Your task to perform on an android device: Open settings on Google Maps Image 0: 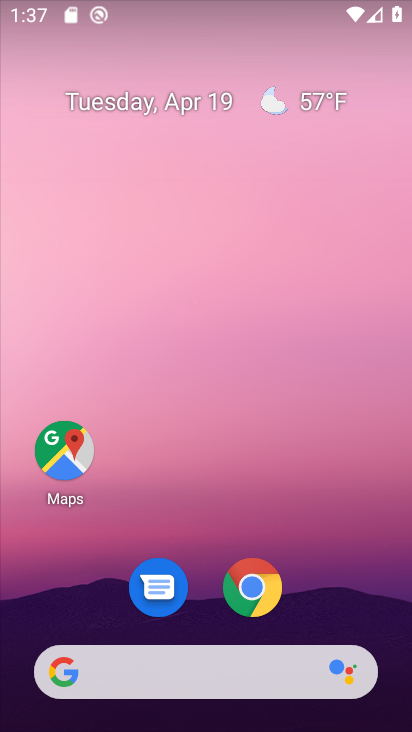
Step 0: click (63, 478)
Your task to perform on an android device: Open settings on Google Maps Image 1: 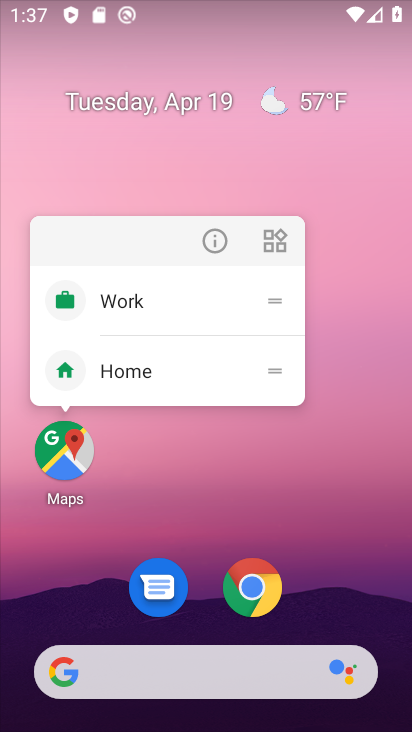
Step 1: click (67, 457)
Your task to perform on an android device: Open settings on Google Maps Image 2: 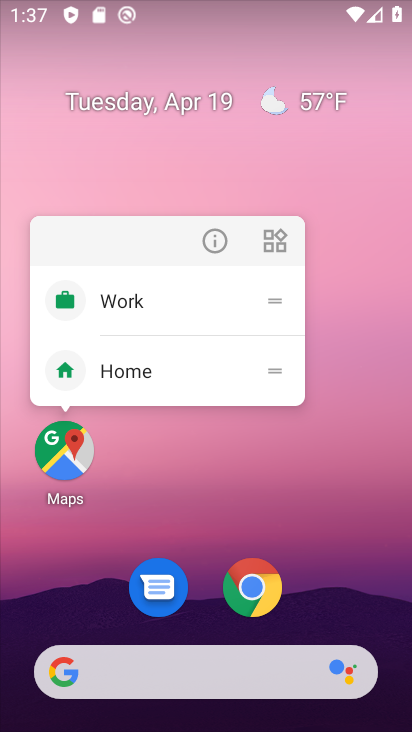
Step 2: click (68, 461)
Your task to perform on an android device: Open settings on Google Maps Image 3: 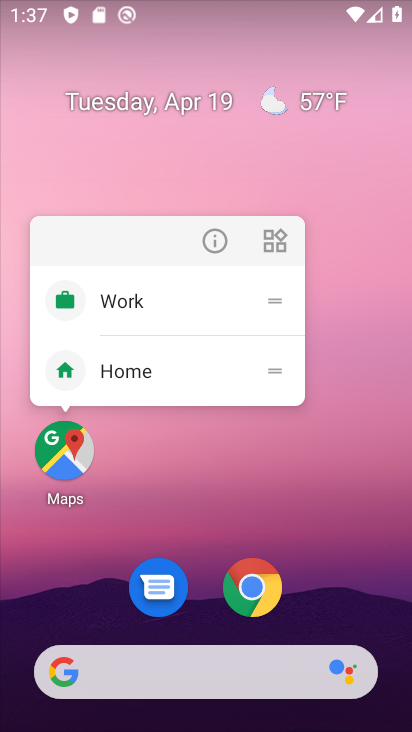
Step 3: click (64, 462)
Your task to perform on an android device: Open settings on Google Maps Image 4: 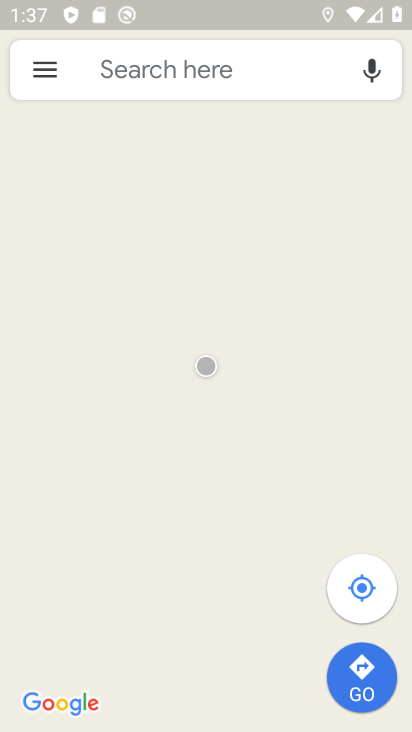
Step 4: click (50, 72)
Your task to perform on an android device: Open settings on Google Maps Image 5: 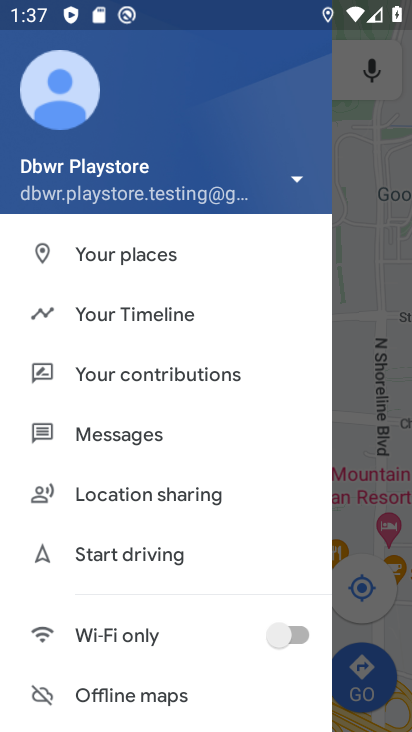
Step 5: drag from (186, 535) to (251, 205)
Your task to perform on an android device: Open settings on Google Maps Image 6: 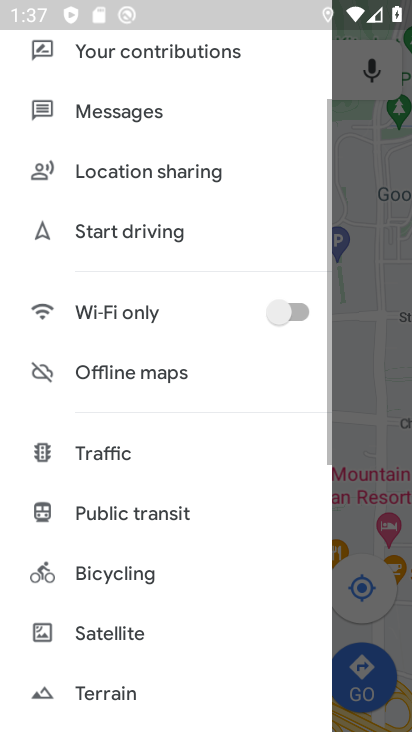
Step 6: drag from (162, 652) to (234, 286)
Your task to perform on an android device: Open settings on Google Maps Image 7: 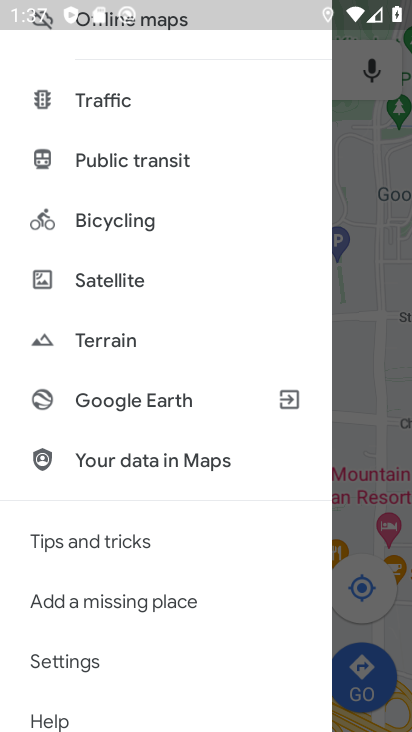
Step 7: click (106, 668)
Your task to perform on an android device: Open settings on Google Maps Image 8: 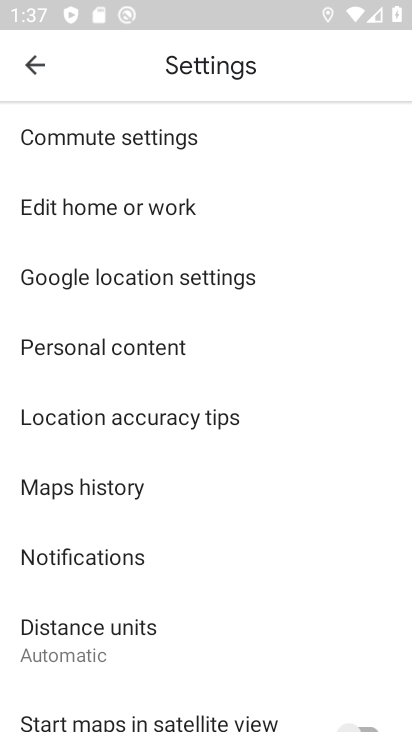
Step 8: task complete